Your task to perform on an android device: Open Google Maps and go to "Timeline" Image 0: 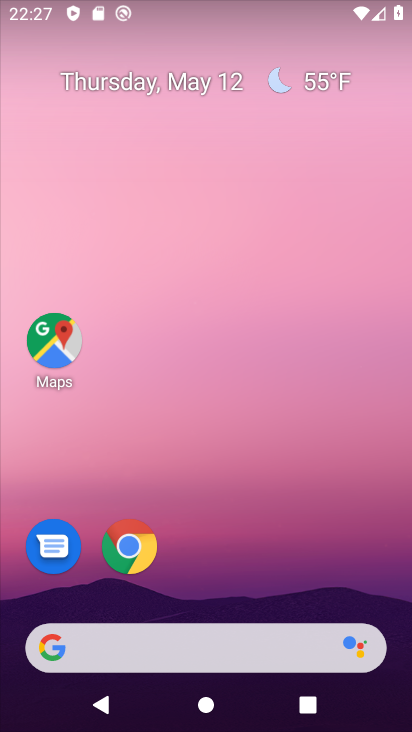
Step 0: drag from (224, 519) to (219, 220)
Your task to perform on an android device: Open Google Maps and go to "Timeline" Image 1: 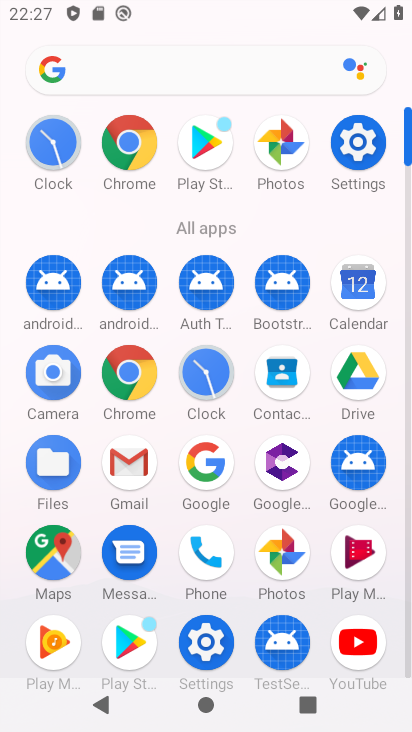
Step 1: click (49, 549)
Your task to perform on an android device: Open Google Maps and go to "Timeline" Image 2: 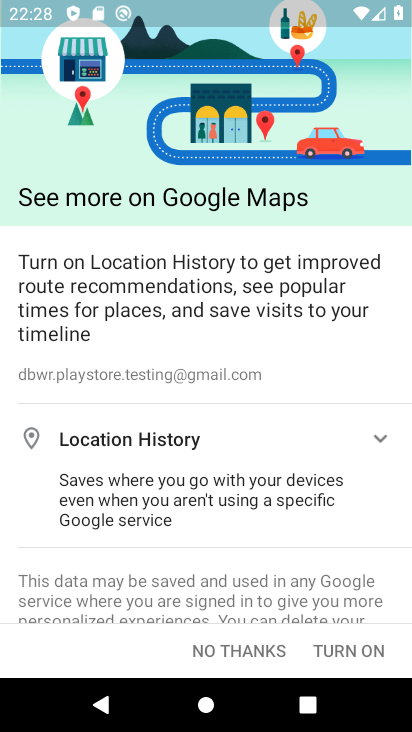
Step 2: click (341, 657)
Your task to perform on an android device: Open Google Maps and go to "Timeline" Image 3: 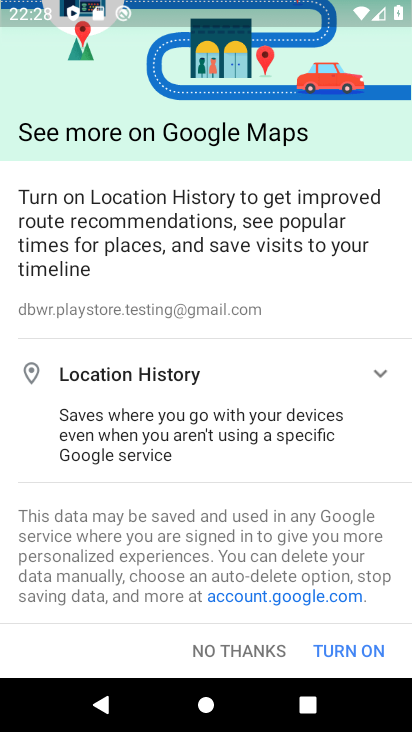
Step 3: click (349, 648)
Your task to perform on an android device: Open Google Maps and go to "Timeline" Image 4: 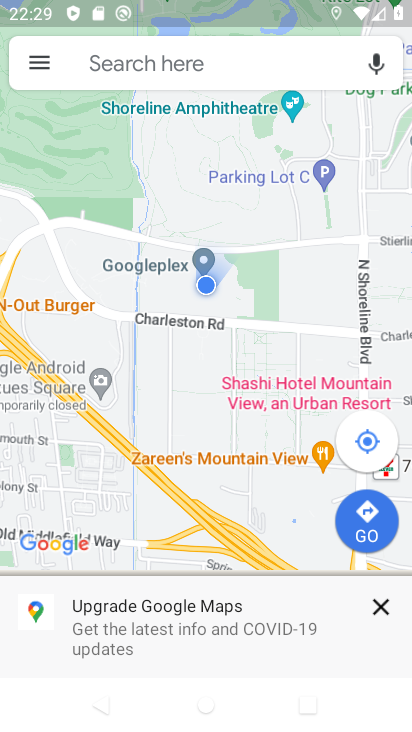
Step 4: click (46, 63)
Your task to perform on an android device: Open Google Maps and go to "Timeline" Image 5: 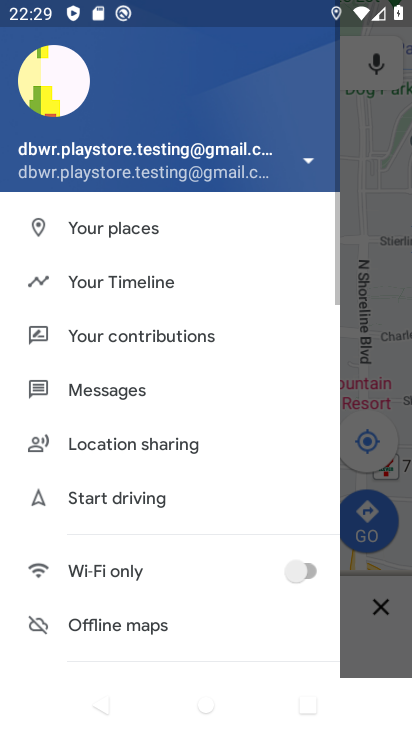
Step 5: click (117, 282)
Your task to perform on an android device: Open Google Maps and go to "Timeline" Image 6: 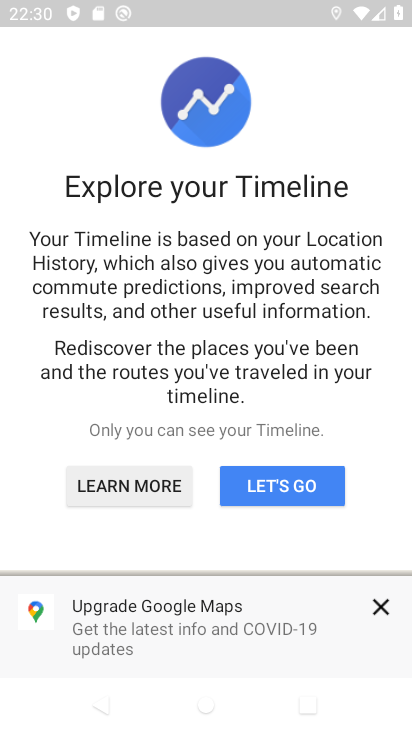
Step 6: click (313, 489)
Your task to perform on an android device: Open Google Maps and go to "Timeline" Image 7: 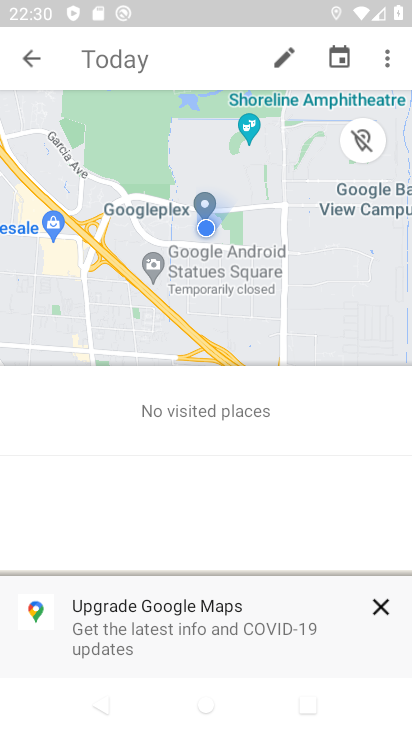
Step 7: click (389, 602)
Your task to perform on an android device: Open Google Maps and go to "Timeline" Image 8: 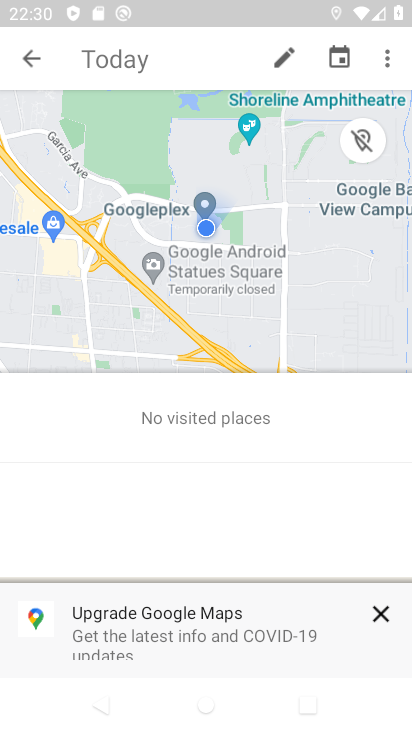
Step 8: click (34, 47)
Your task to perform on an android device: Open Google Maps and go to "Timeline" Image 9: 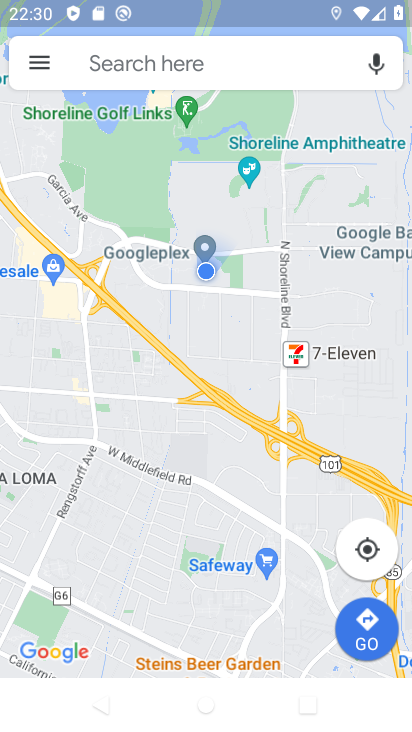
Step 9: click (37, 55)
Your task to perform on an android device: Open Google Maps and go to "Timeline" Image 10: 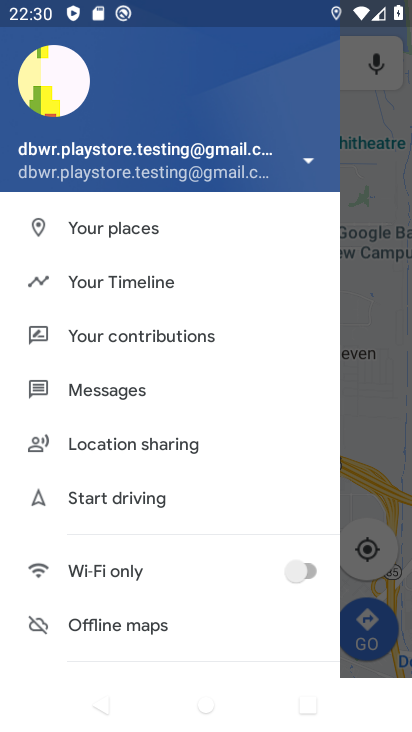
Step 10: click (133, 292)
Your task to perform on an android device: Open Google Maps and go to "Timeline" Image 11: 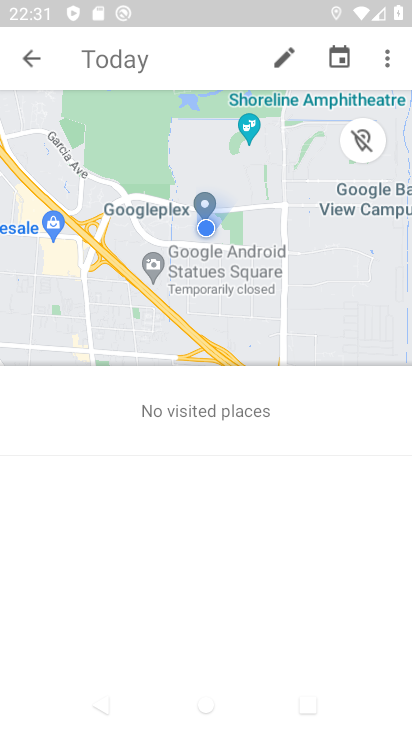
Step 11: task complete